Your task to perform on an android device: install app "DoorDash - Dasher" Image 0: 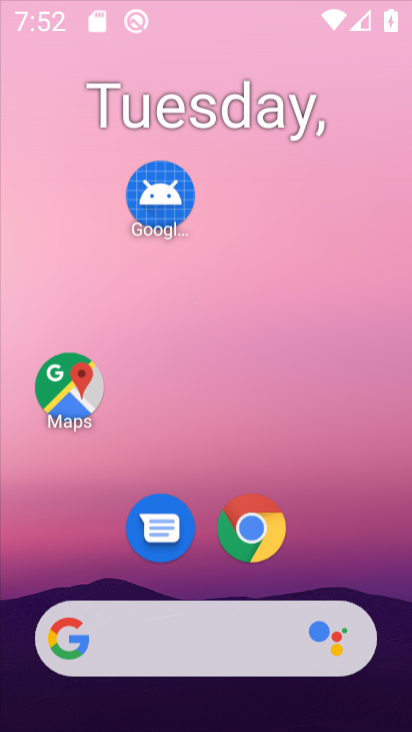
Step 0: press home button
Your task to perform on an android device: install app "DoorDash - Dasher" Image 1: 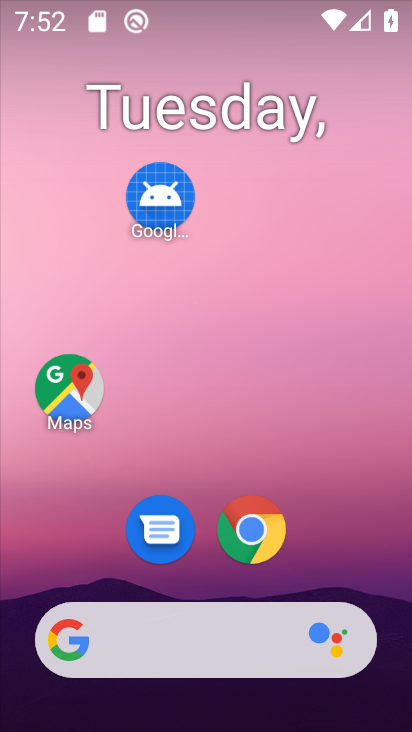
Step 1: drag from (340, 548) to (329, 4)
Your task to perform on an android device: install app "DoorDash - Dasher" Image 2: 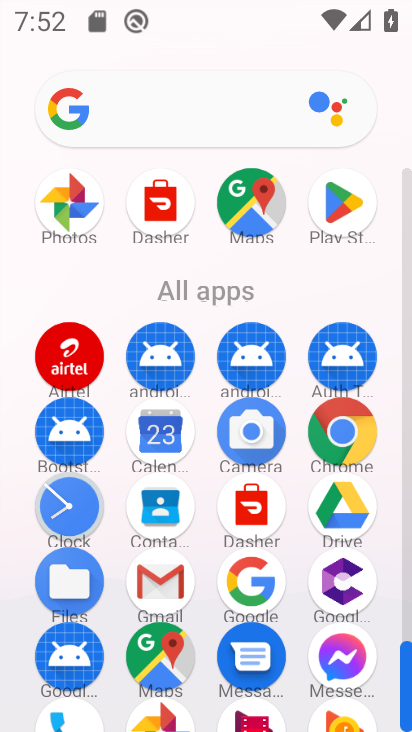
Step 2: click (337, 202)
Your task to perform on an android device: install app "DoorDash - Dasher" Image 3: 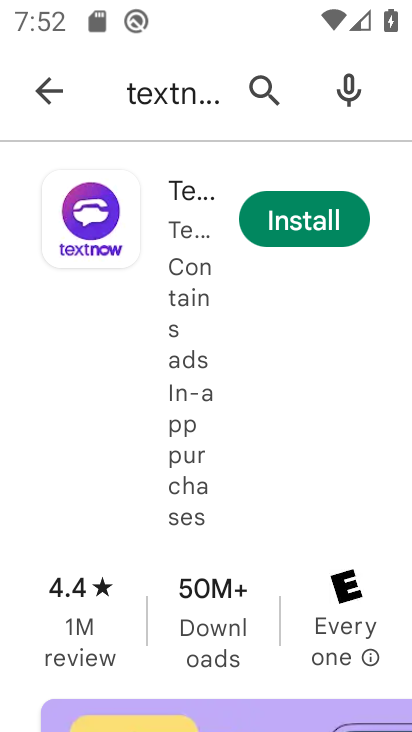
Step 3: click (267, 81)
Your task to perform on an android device: install app "DoorDash - Dasher" Image 4: 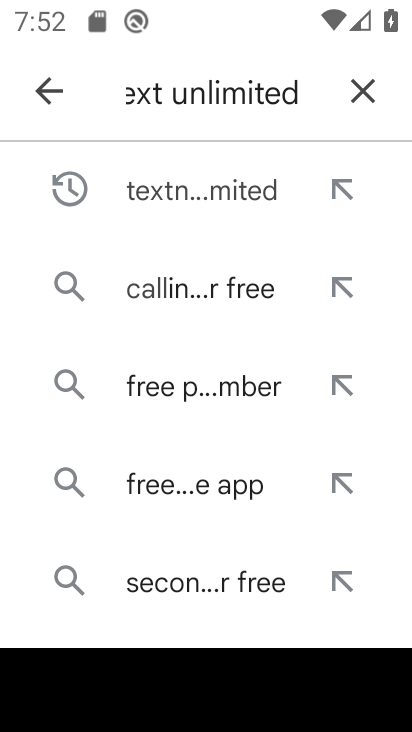
Step 4: click (361, 82)
Your task to perform on an android device: install app "DoorDash - Dasher" Image 5: 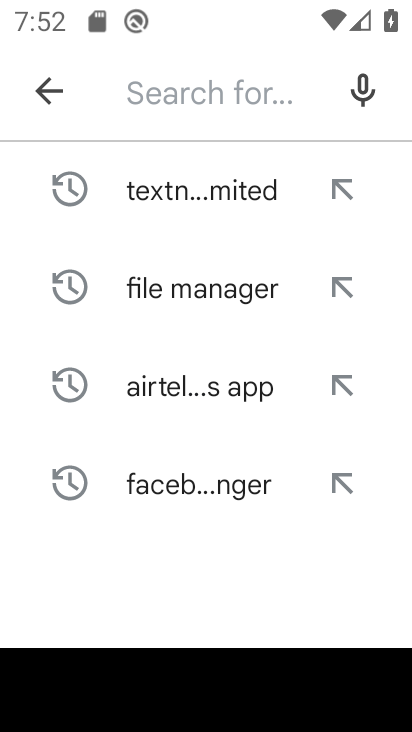
Step 5: type "DoorDash - Dasher"
Your task to perform on an android device: install app "DoorDash - Dasher" Image 6: 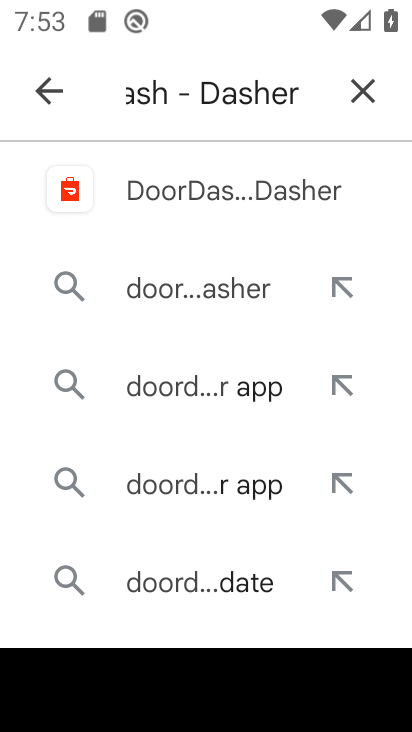
Step 6: click (245, 204)
Your task to perform on an android device: install app "DoorDash - Dasher" Image 7: 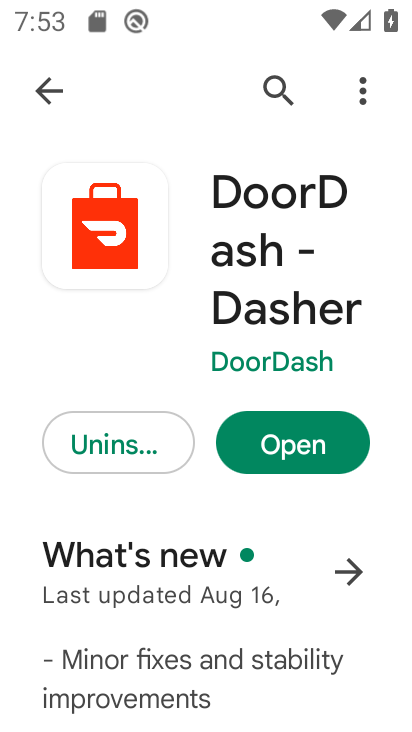
Step 7: click (289, 457)
Your task to perform on an android device: install app "DoorDash - Dasher" Image 8: 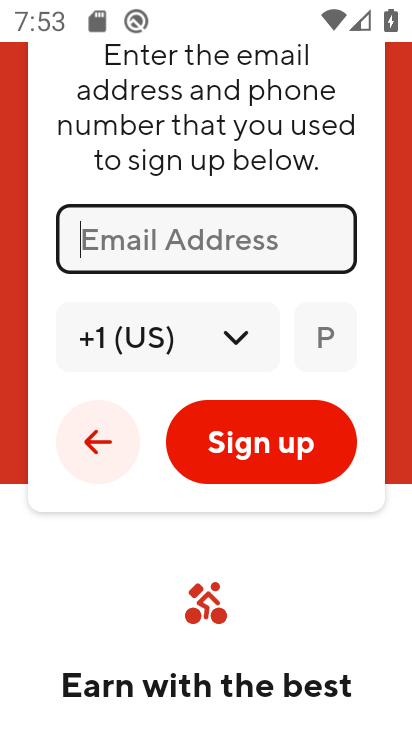
Step 8: task complete